Your task to perform on an android device: read, delete, or share a saved page in the chrome app Image 0: 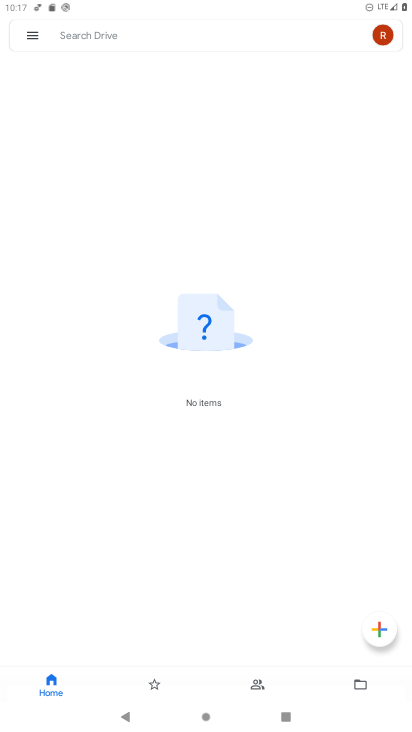
Step 0: press home button
Your task to perform on an android device: read, delete, or share a saved page in the chrome app Image 1: 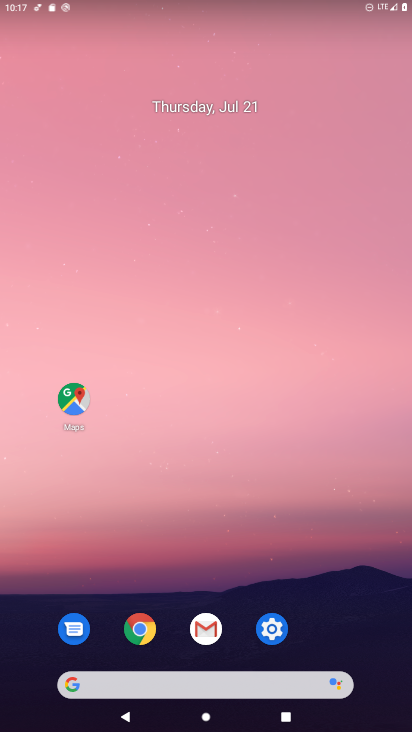
Step 1: click (136, 618)
Your task to perform on an android device: read, delete, or share a saved page in the chrome app Image 2: 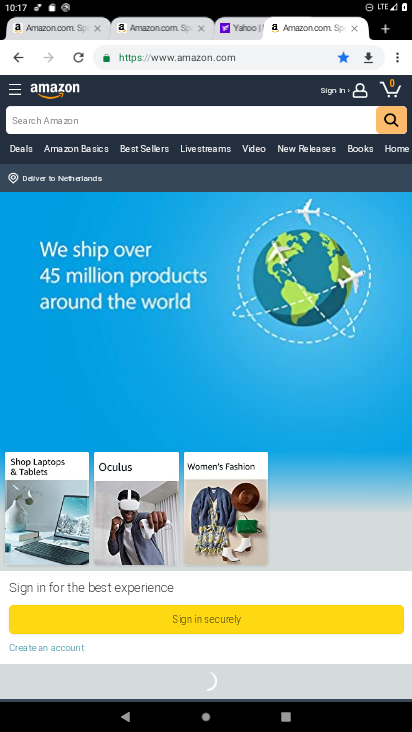
Step 2: click (398, 61)
Your task to perform on an android device: read, delete, or share a saved page in the chrome app Image 3: 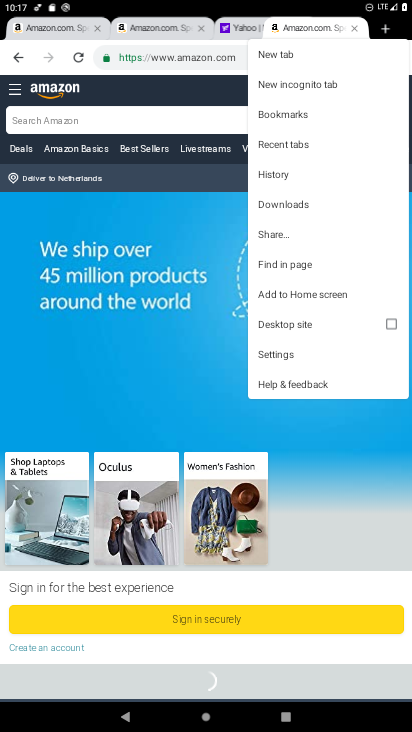
Step 3: click (278, 238)
Your task to perform on an android device: read, delete, or share a saved page in the chrome app Image 4: 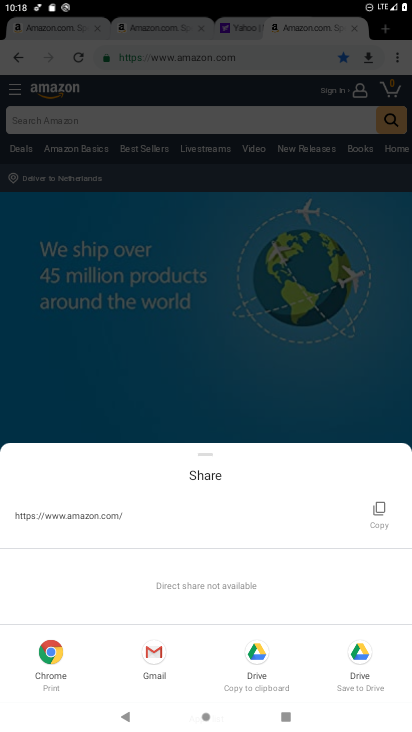
Step 4: task complete